Your task to perform on an android device: delete the emails in spam in the gmail app Image 0: 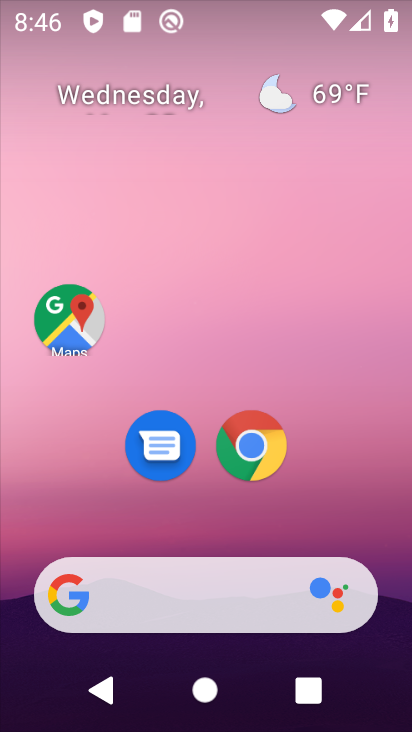
Step 0: drag from (290, 471) to (266, 90)
Your task to perform on an android device: delete the emails in spam in the gmail app Image 1: 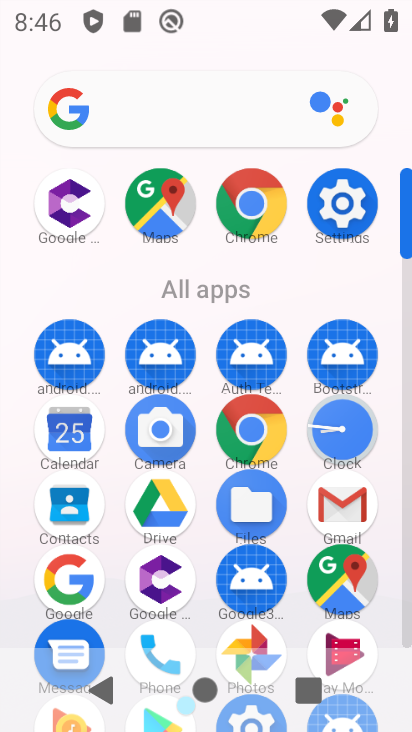
Step 1: drag from (294, 334) to (296, 81)
Your task to perform on an android device: delete the emails in spam in the gmail app Image 2: 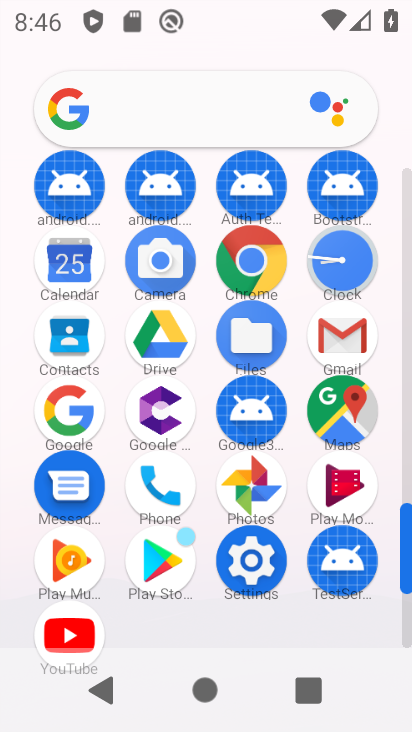
Step 2: click (337, 335)
Your task to perform on an android device: delete the emails in spam in the gmail app Image 3: 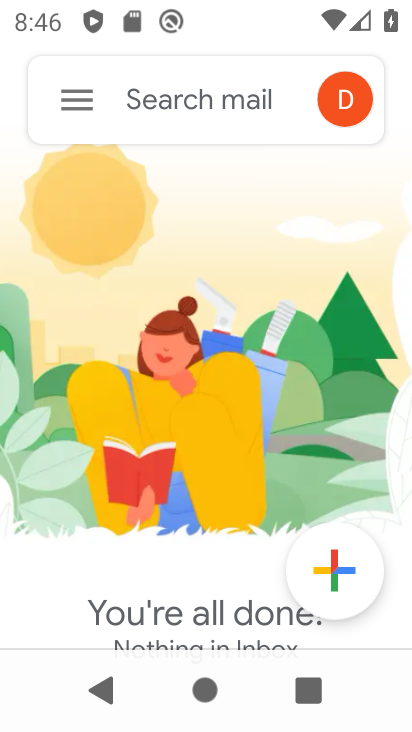
Step 3: click (75, 98)
Your task to perform on an android device: delete the emails in spam in the gmail app Image 4: 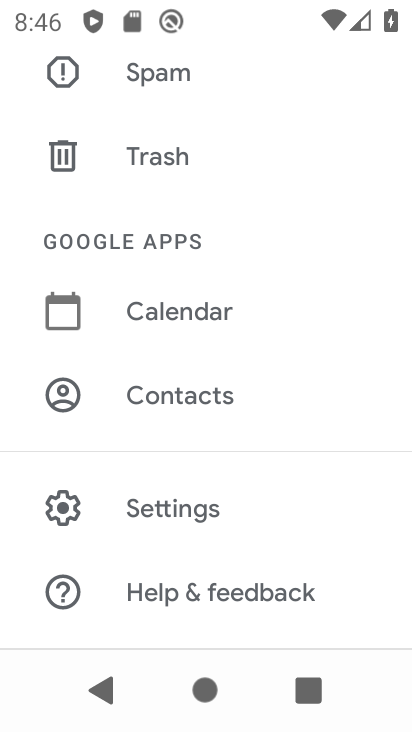
Step 4: click (155, 67)
Your task to perform on an android device: delete the emails in spam in the gmail app Image 5: 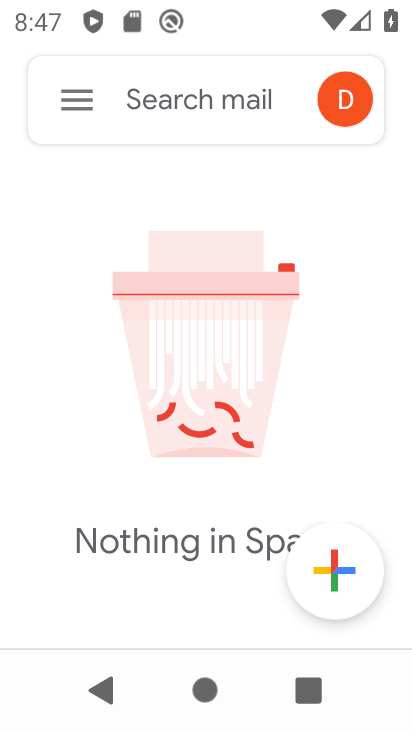
Step 5: task complete